Your task to perform on an android device: Open my contact list Image 0: 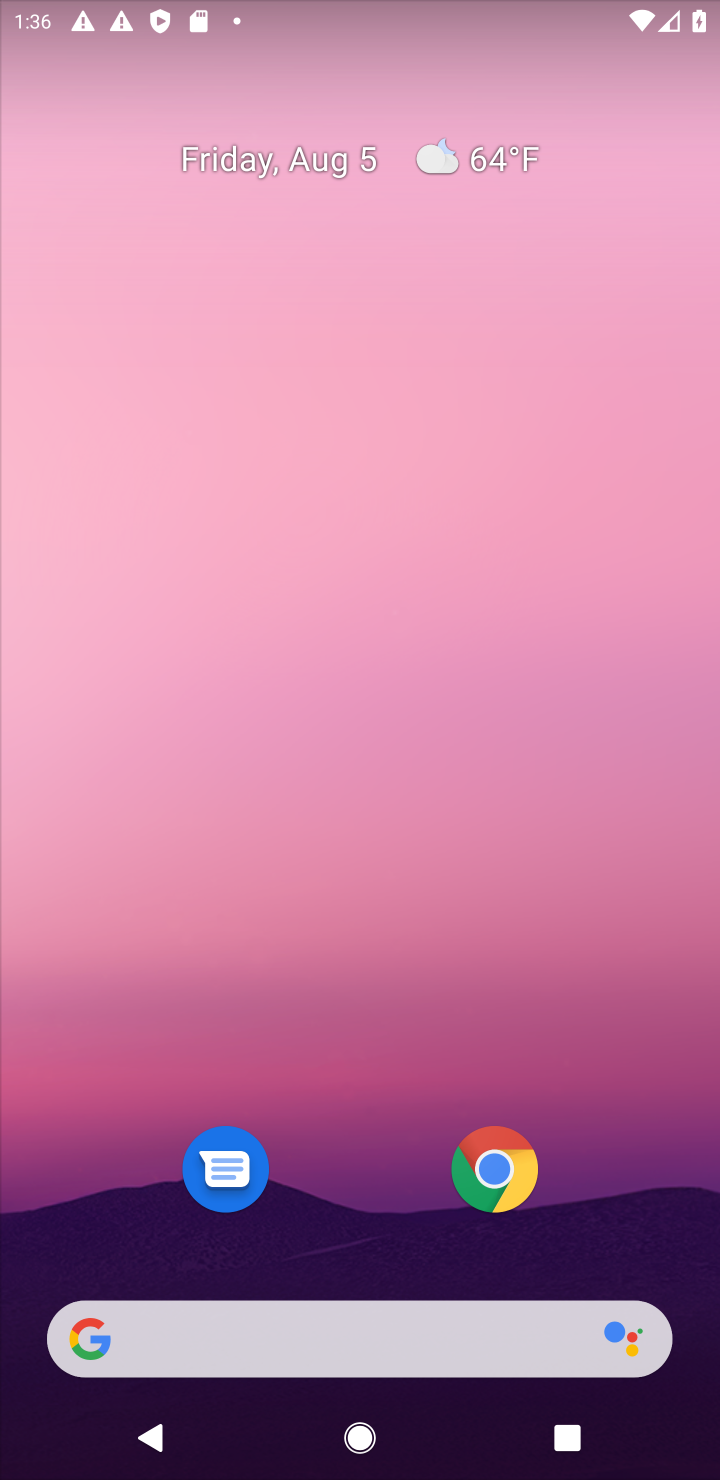
Step 0: drag from (341, 1073) to (341, 369)
Your task to perform on an android device: Open my contact list Image 1: 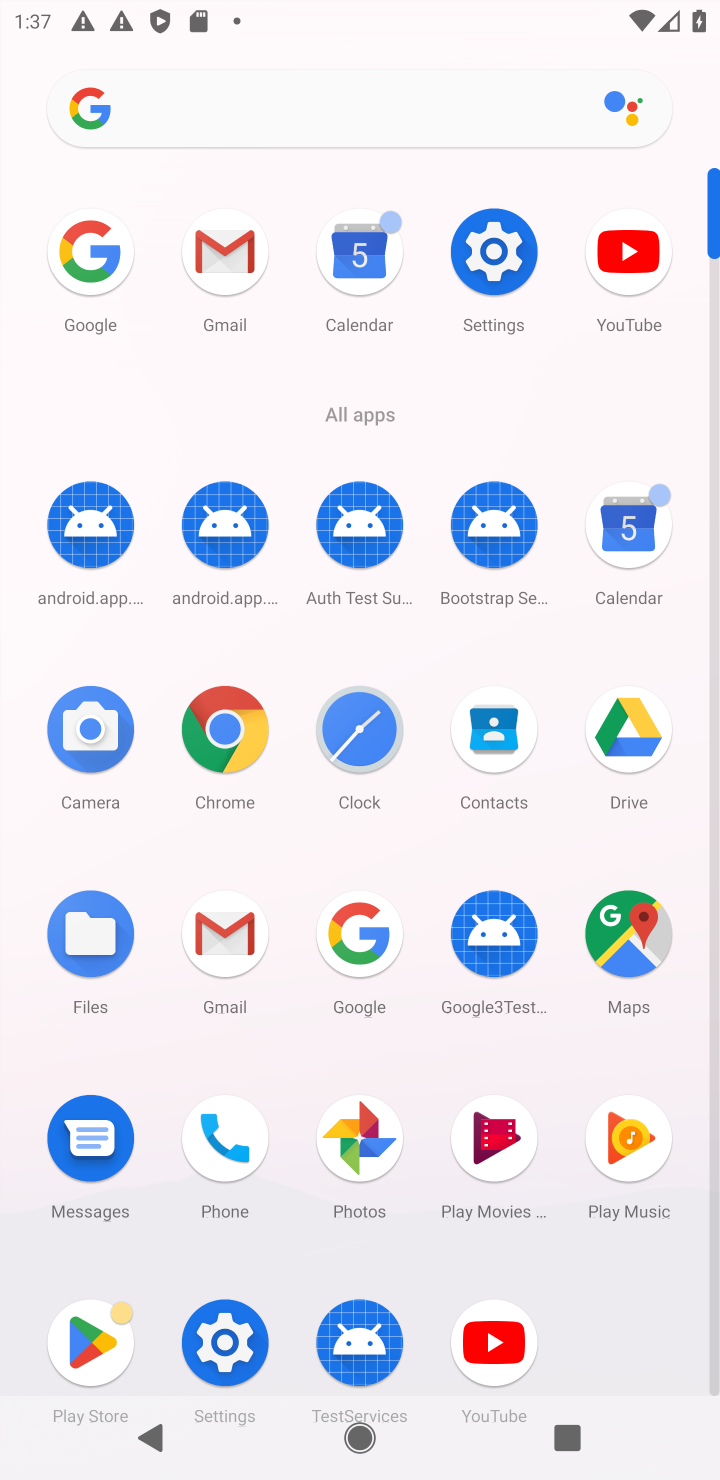
Step 1: click (499, 741)
Your task to perform on an android device: Open my contact list Image 2: 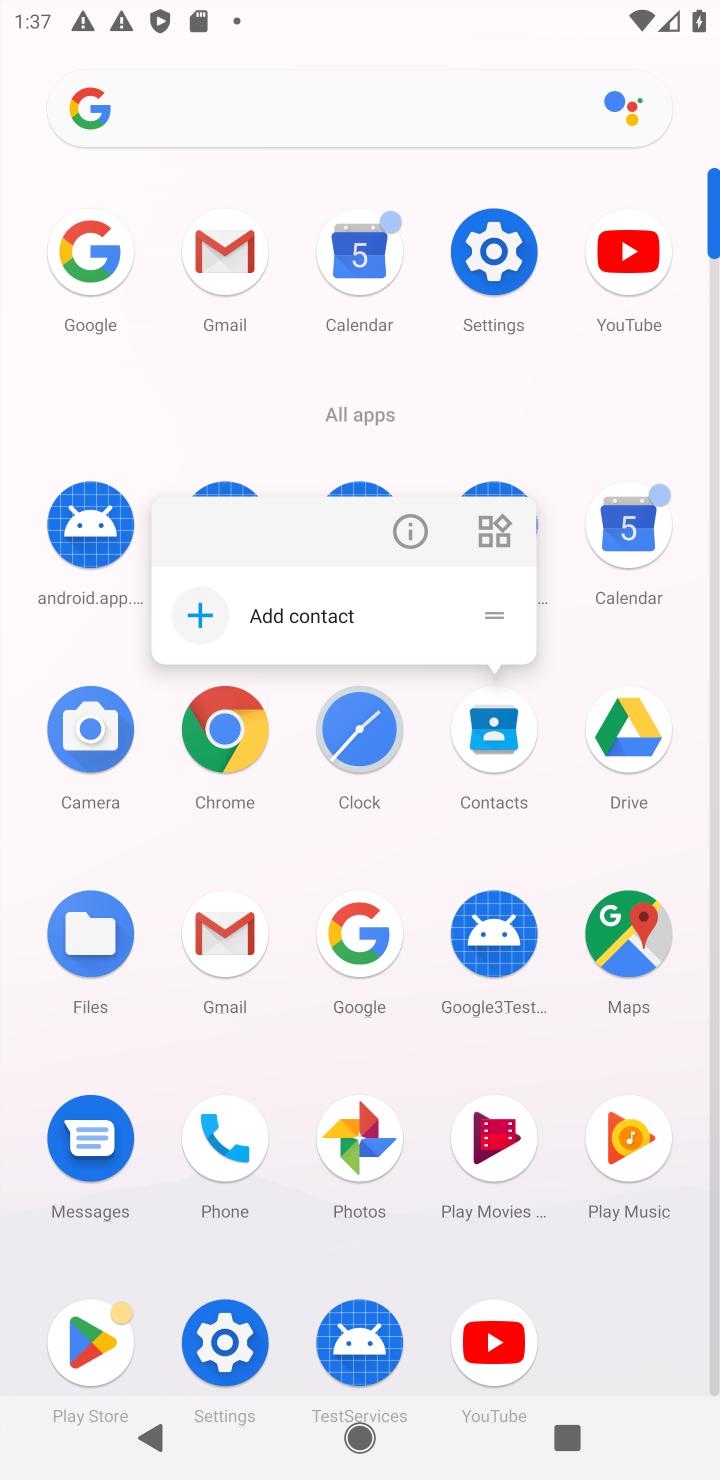
Step 2: click (499, 741)
Your task to perform on an android device: Open my contact list Image 3: 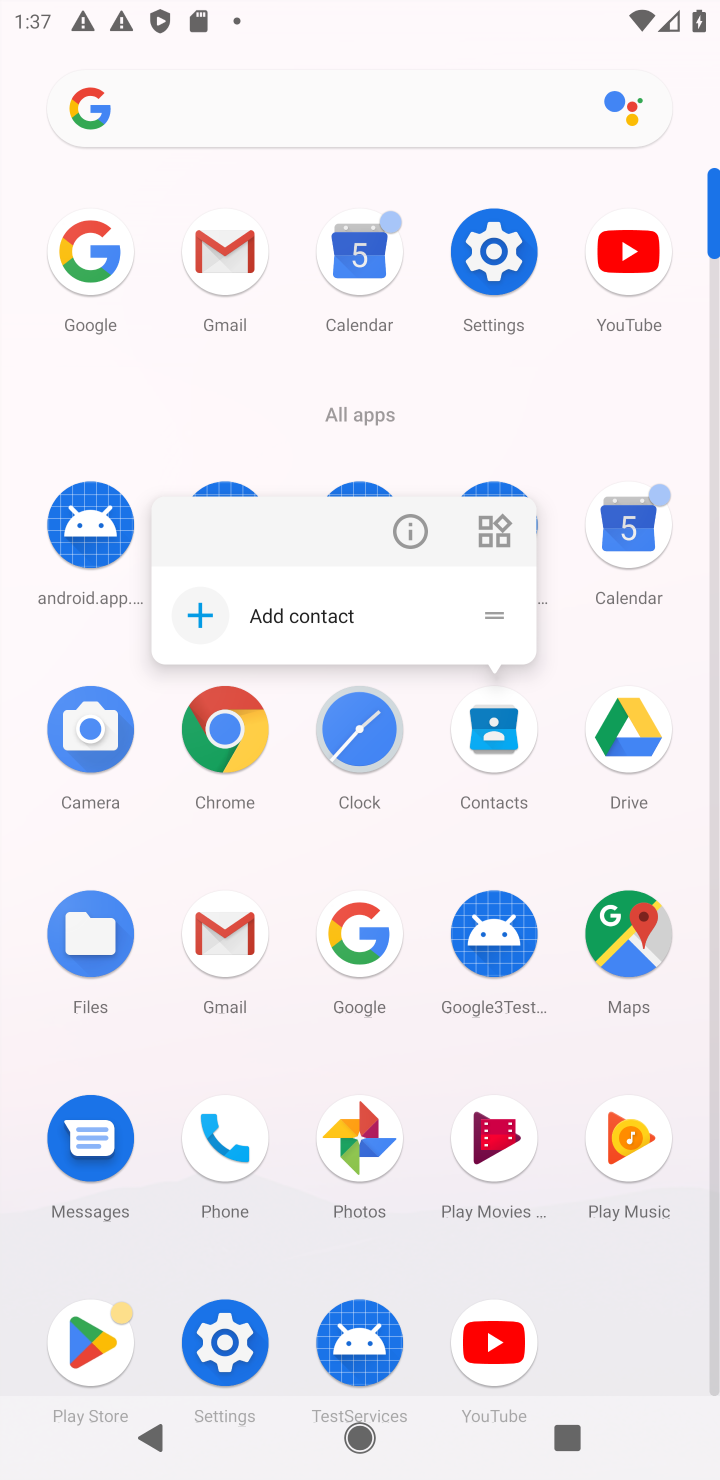
Step 3: click (499, 741)
Your task to perform on an android device: Open my contact list Image 4: 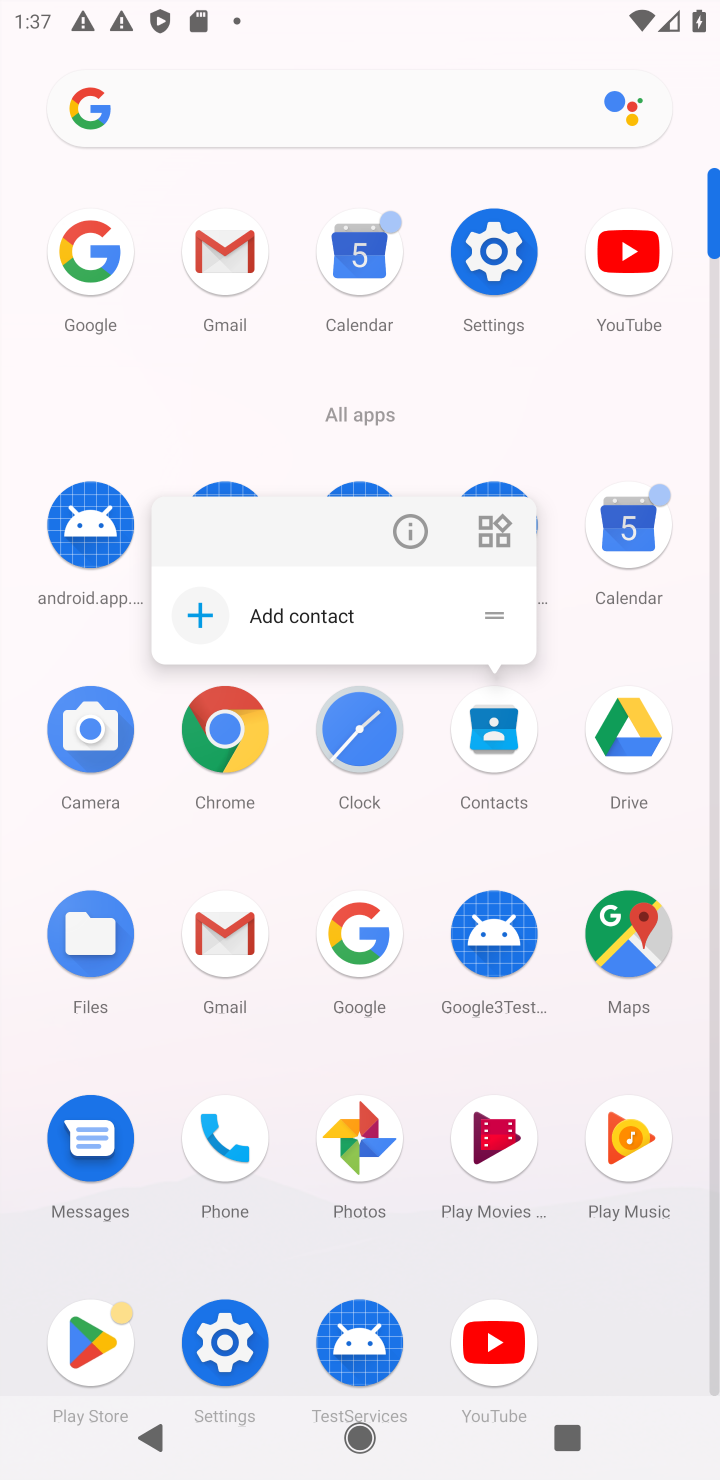
Step 4: click (499, 741)
Your task to perform on an android device: Open my contact list Image 5: 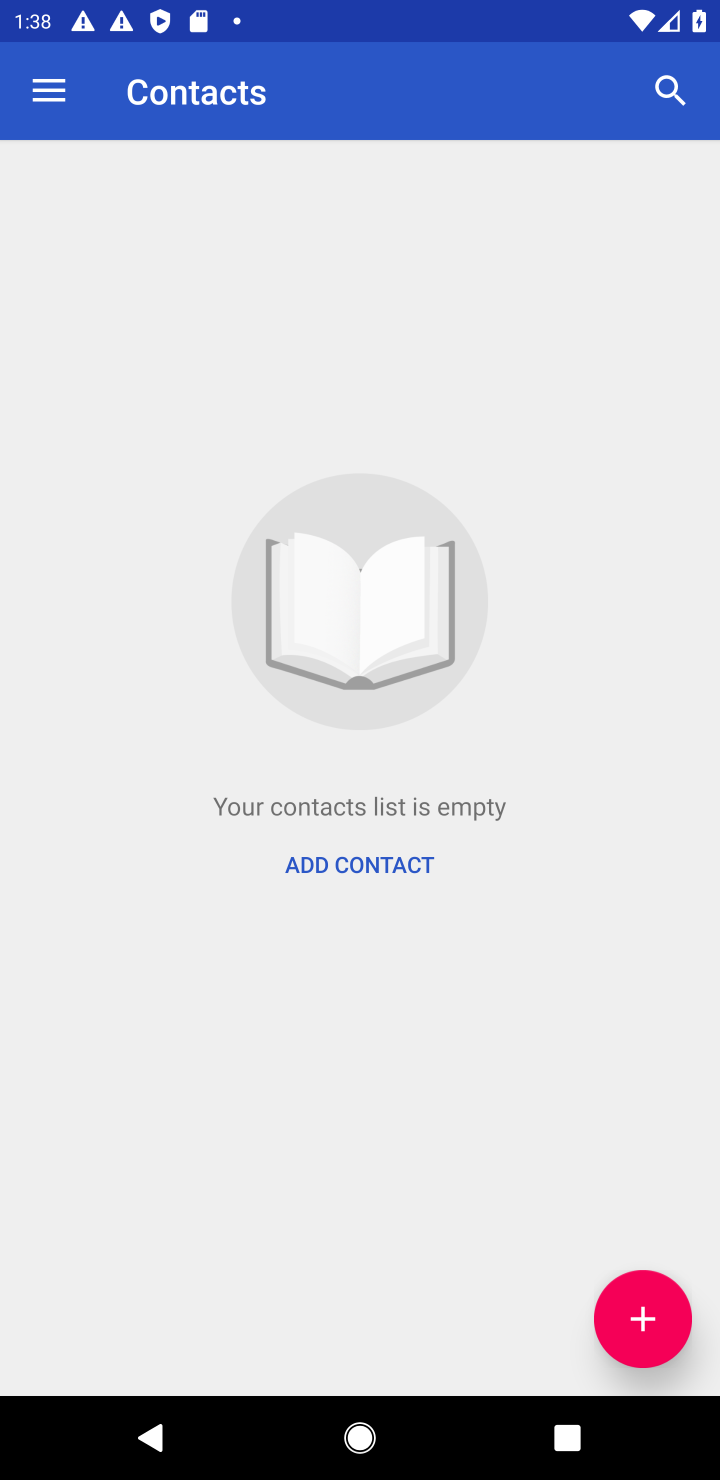
Step 5: task complete